Your task to perform on an android device: Turn on the flashlight Image 0: 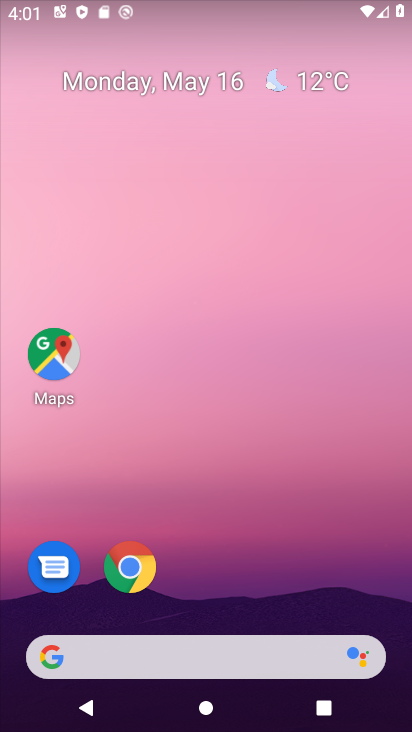
Step 0: drag from (283, 525) to (362, 239)
Your task to perform on an android device: Turn on the flashlight Image 1: 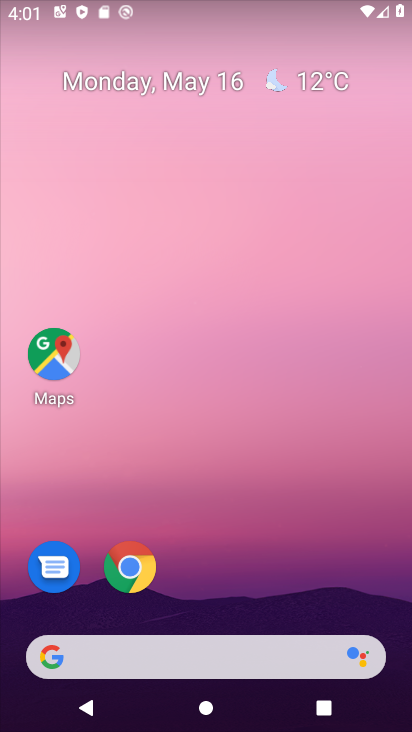
Step 1: drag from (0, 496) to (0, 4)
Your task to perform on an android device: Turn on the flashlight Image 2: 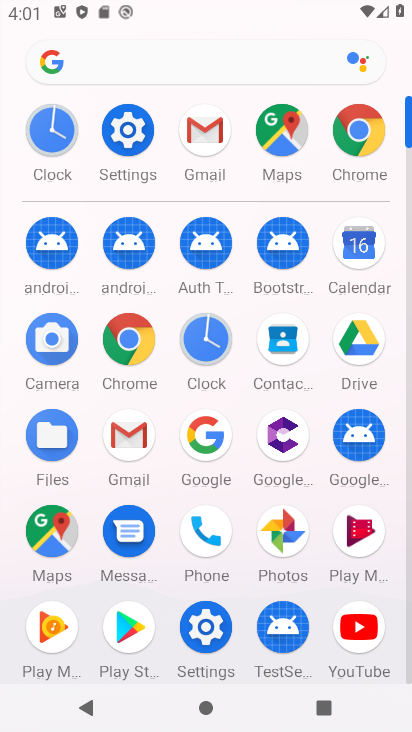
Step 2: click (205, 622)
Your task to perform on an android device: Turn on the flashlight Image 3: 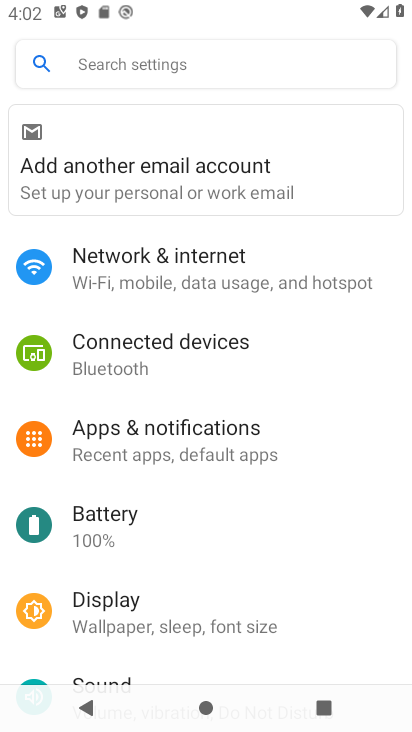
Step 3: drag from (306, 488) to (325, 208)
Your task to perform on an android device: Turn on the flashlight Image 4: 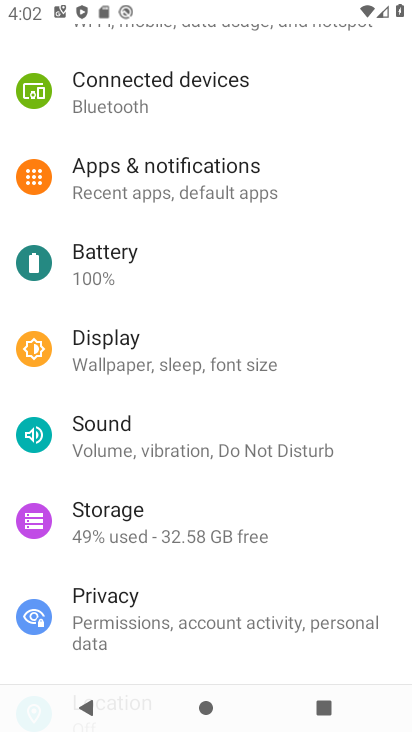
Step 4: drag from (247, 557) to (271, 157)
Your task to perform on an android device: Turn on the flashlight Image 5: 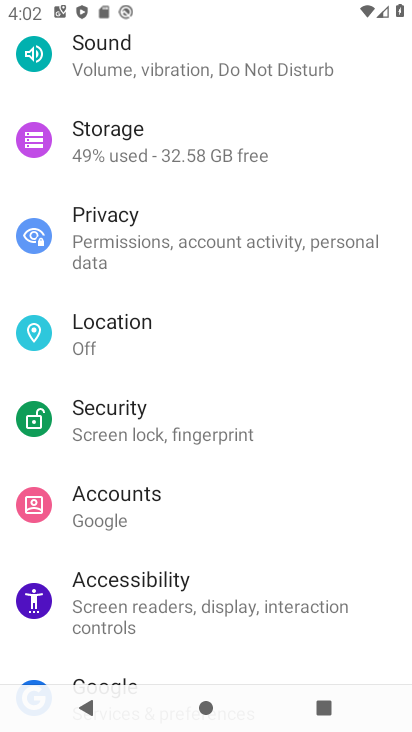
Step 5: drag from (277, 151) to (251, 591)
Your task to perform on an android device: Turn on the flashlight Image 6: 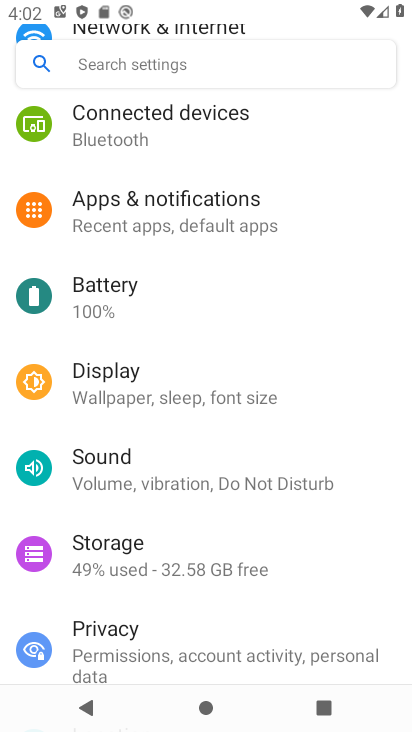
Step 6: drag from (280, 265) to (280, 614)
Your task to perform on an android device: Turn on the flashlight Image 7: 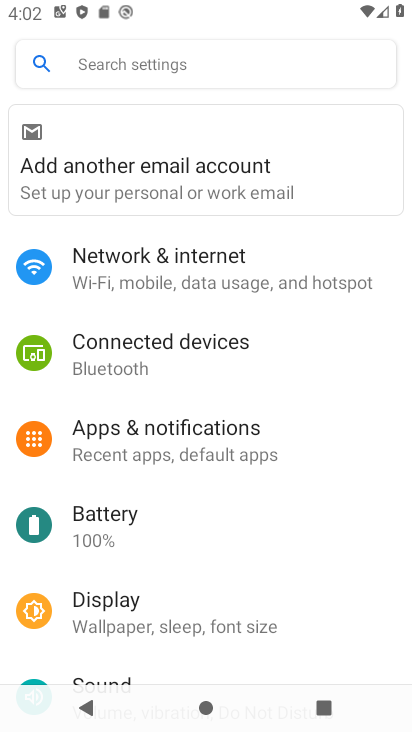
Step 7: click (263, 279)
Your task to perform on an android device: Turn on the flashlight Image 8: 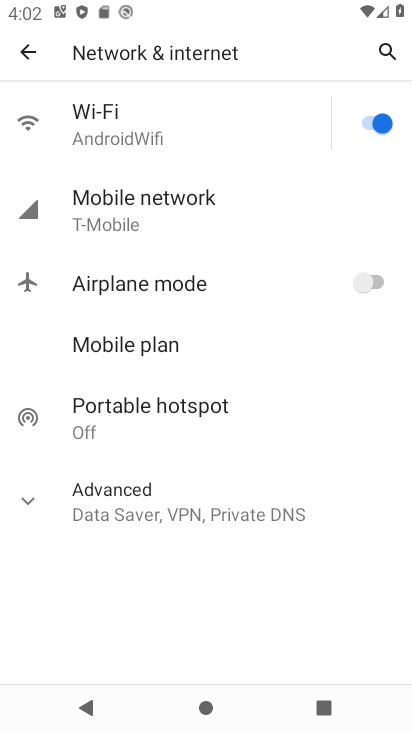
Step 8: click (35, 495)
Your task to perform on an android device: Turn on the flashlight Image 9: 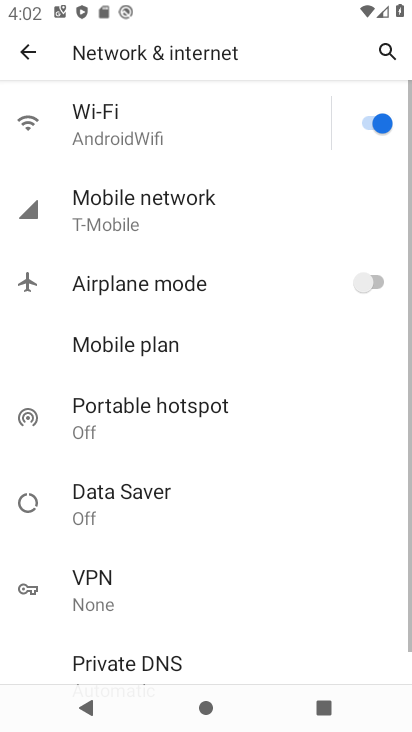
Step 9: task complete